Your task to perform on an android device: Go to CNN.com Image 0: 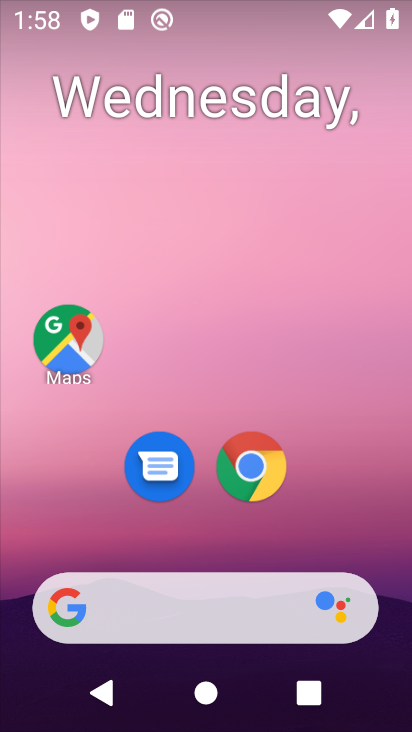
Step 0: drag from (338, 264) to (319, 148)
Your task to perform on an android device: Go to CNN.com Image 1: 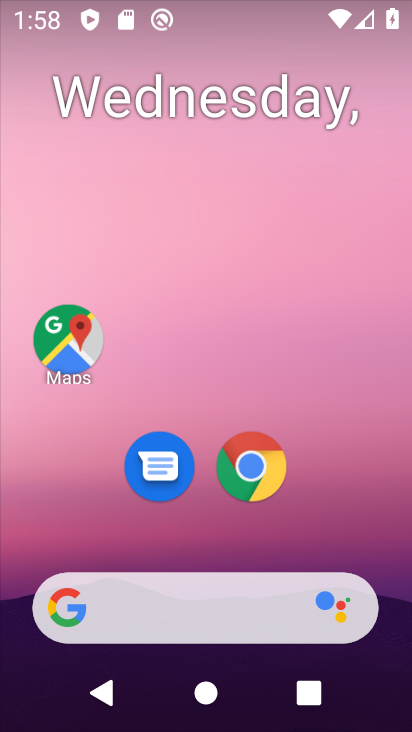
Step 1: drag from (370, 564) to (318, 180)
Your task to perform on an android device: Go to CNN.com Image 2: 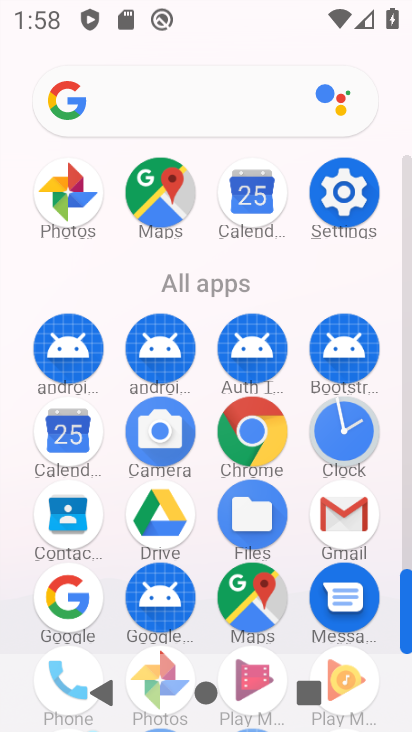
Step 2: click (273, 437)
Your task to perform on an android device: Go to CNN.com Image 3: 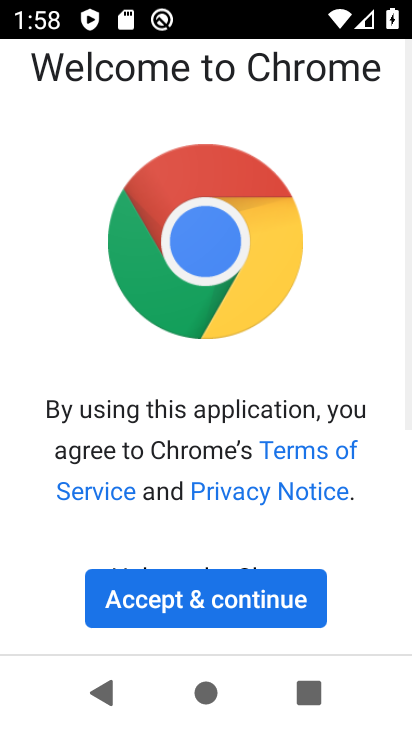
Step 3: click (224, 598)
Your task to perform on an android device: Go to CNN.com Image 4: 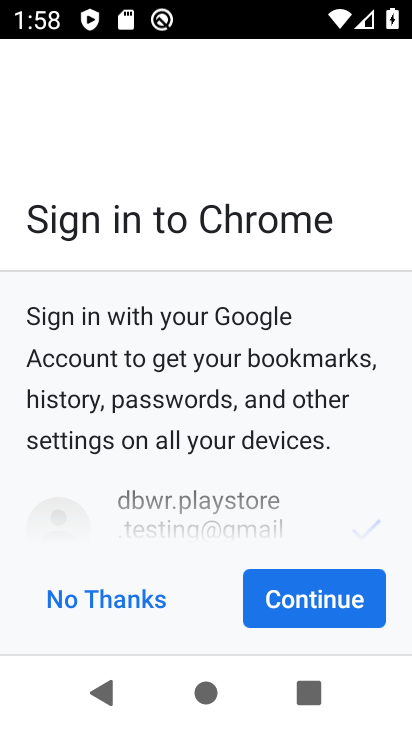
Step 4: click (308, 613)
Your task to perform on an android device: Go to CNN.com Image 5: 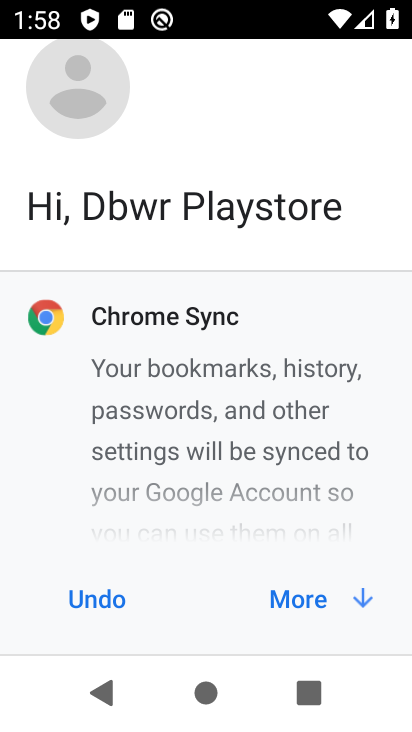
Step 5: click (308, 611)
Your task to perform on an android device: Go to CNN.com Image 6: 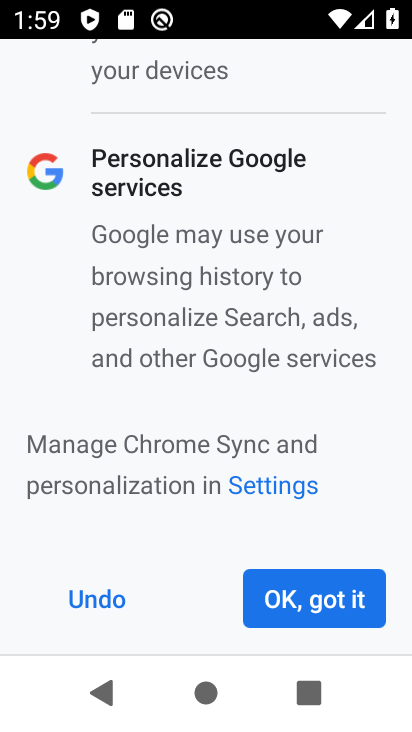
Step 6: click (308, 611)
Your task to perform on an android device: Go to CNN.com Image 7: 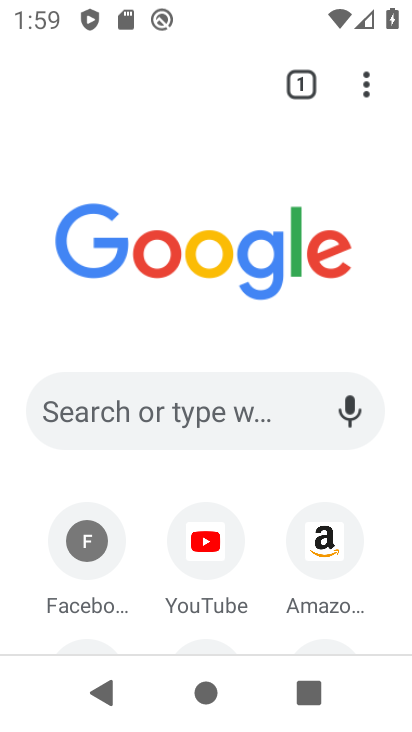
Step 7: click (225, 414)
Your task to perform on an android device: Go to CNN.com Image 8: 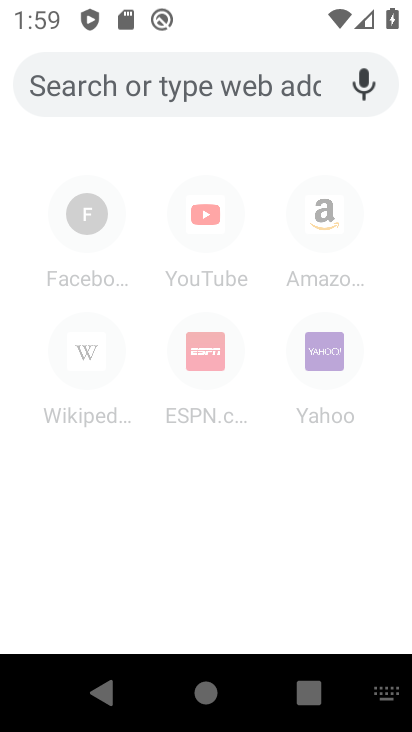
Step 8: type "cnn.com"
Your task to perform on an android device: Go to CNN.com Image 9: 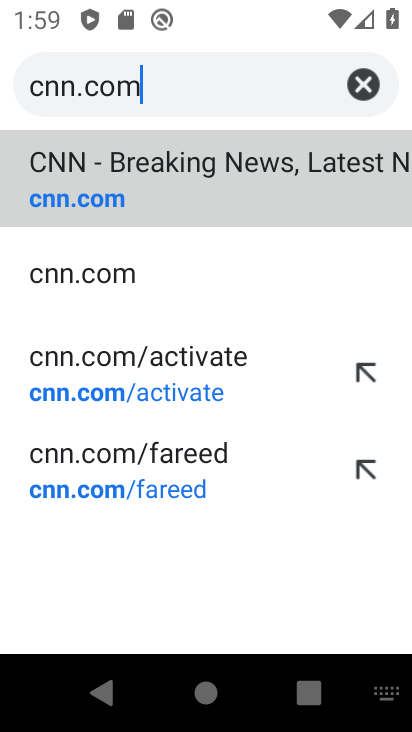
Step 9: click (139, 191)
Your task to perform on an android device: Go to CNN.com Image 10: 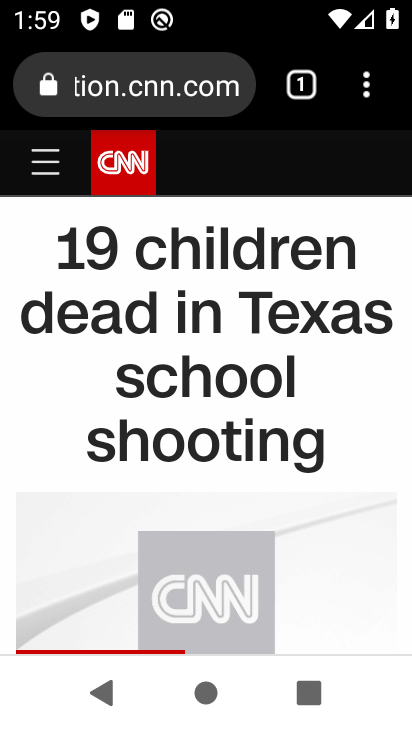
Step 10: task complete